Your task to perform on an android device: change alarm snooze length Image 0: 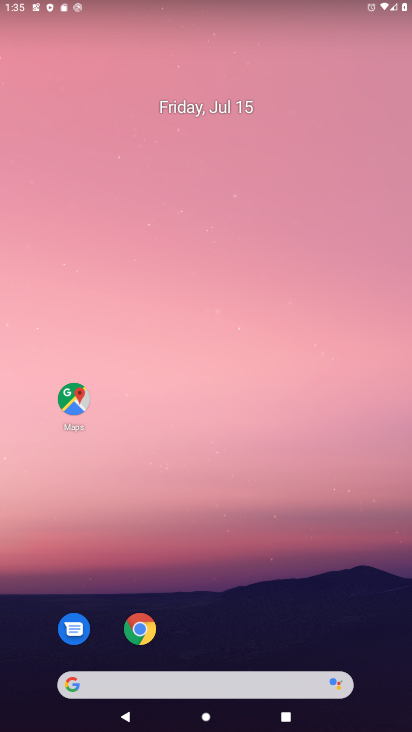
Step 0: drag from (285, 553) to (267, 121)
Your task to perform on an android device: change alarm snooze length Image 1: 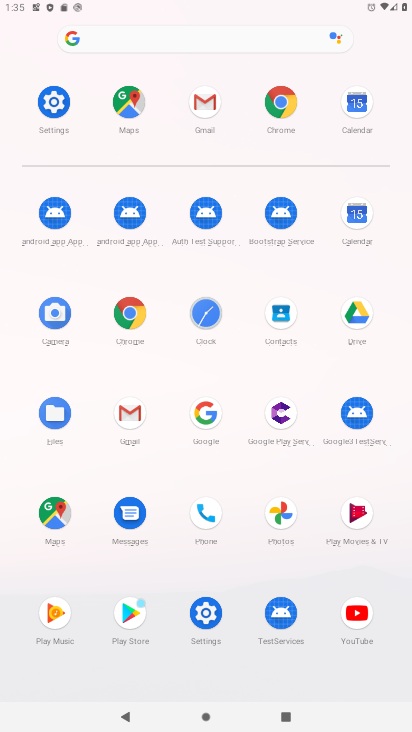
Step 1: click (196, 318)
Your task to perform on an android device: change alarm snooze length Image 2: 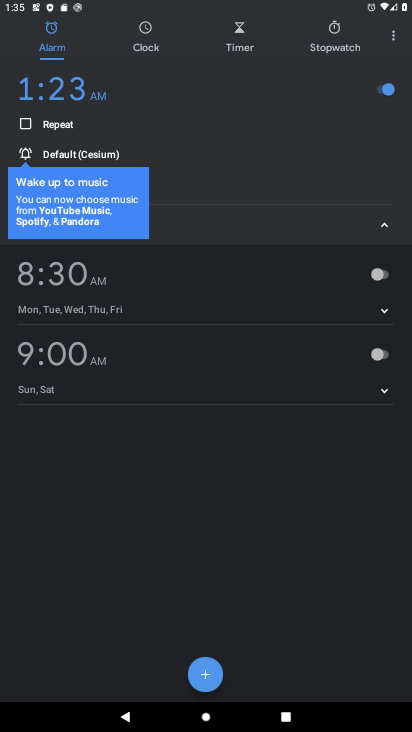
Step 2: click (396, 33)
Your task to perform on an android device: change alarm snooze length Image 3: 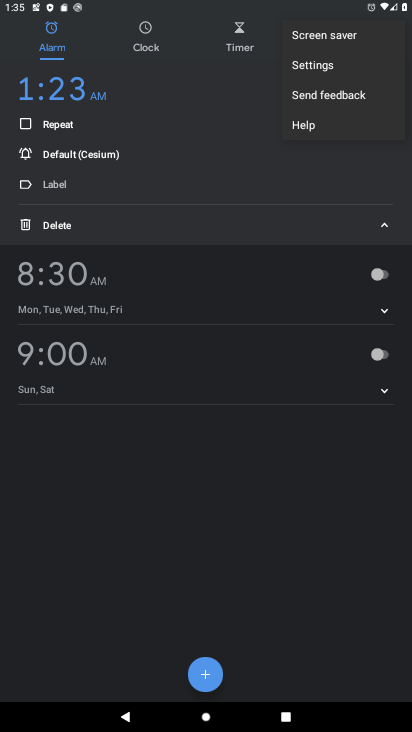
Step 3: click (330, 76)
Your task to perform on an android device: change alarm snooze length Image 4: 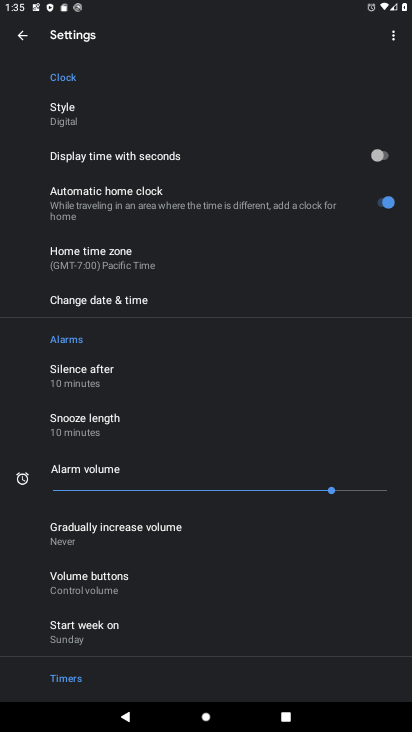
Step 4: click (115, 420)
Your task to perform on an android device: change alarm snooze length Image 5: 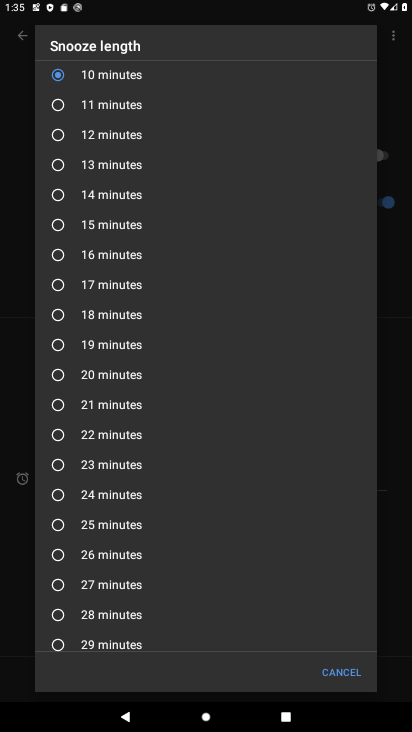
Step 5: click (125, 101)
Your task to perform on an android device: change alarm snooze length Image 6: 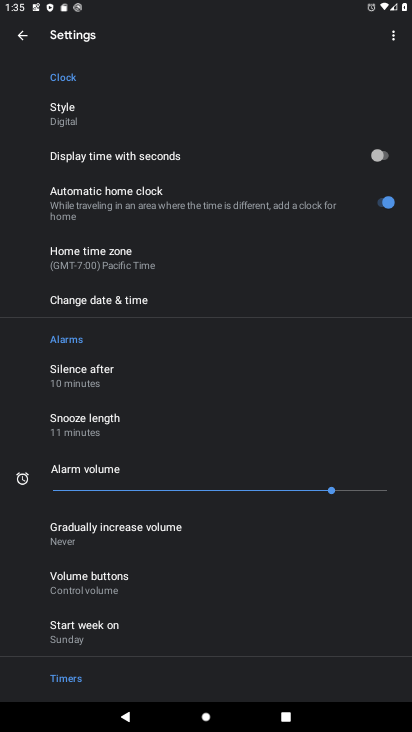
Step 6: task complete